Your task to perform on an android device: Is it going to rain today? Image 0: 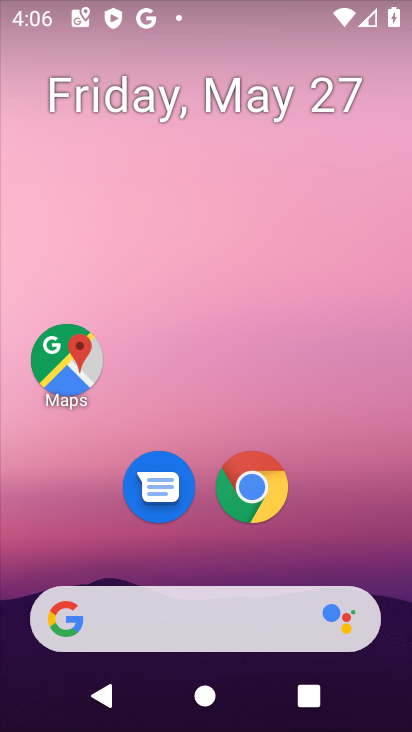
Step 0: click (246, 480)
Your task to perform on an android device: Is it going to rain today? Image 1: 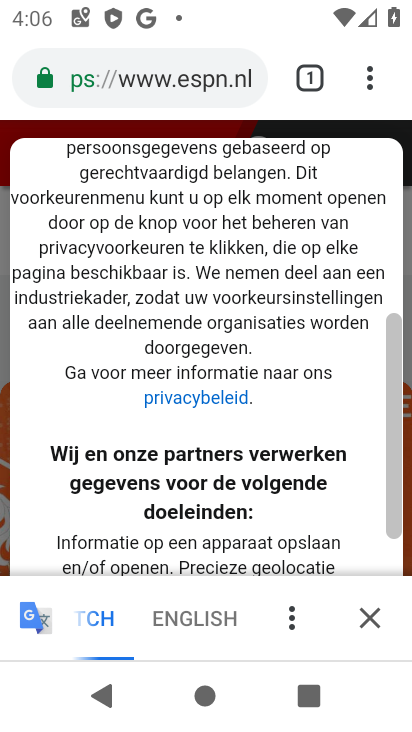
Step 1: click (210, 67)
Your task to perform on an android device: Is it going to rain today? Image 2: 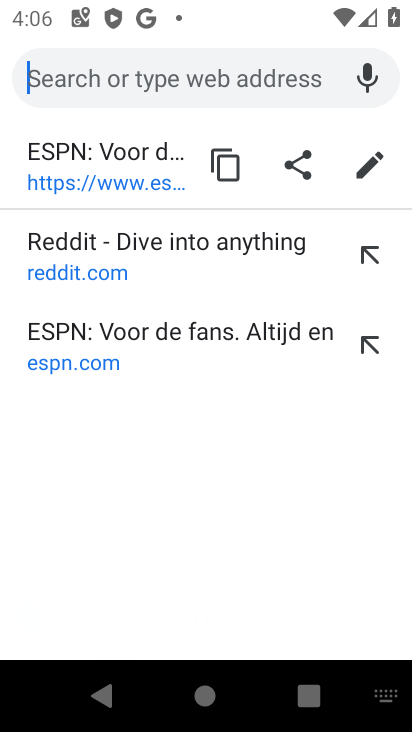
Step 2: type "weather"
Your task to perform on an android device: Is it going to rain today? Image 3: 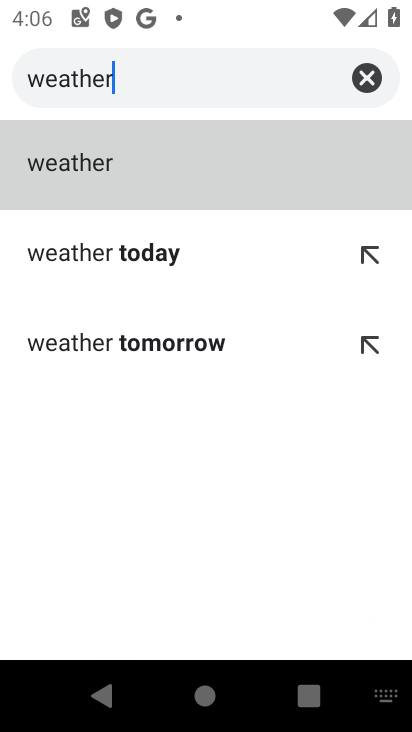
Step 3: click (73, 162)
Your task to perform on an android device: Is it going to rain today? Image 4: 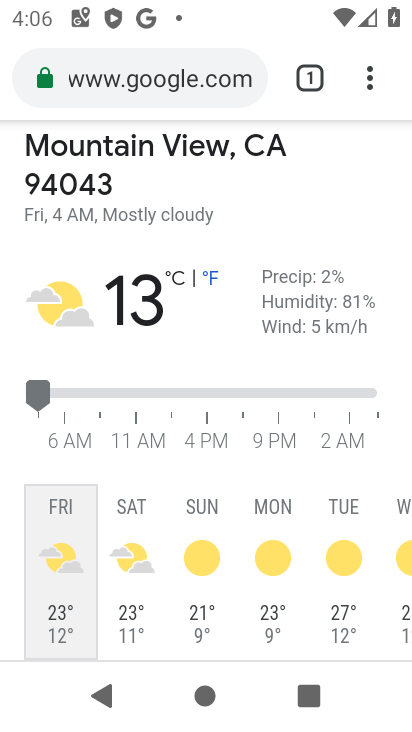
Step 4: task complete